Your task to perform on an android device: Open CNN.com Image 0: 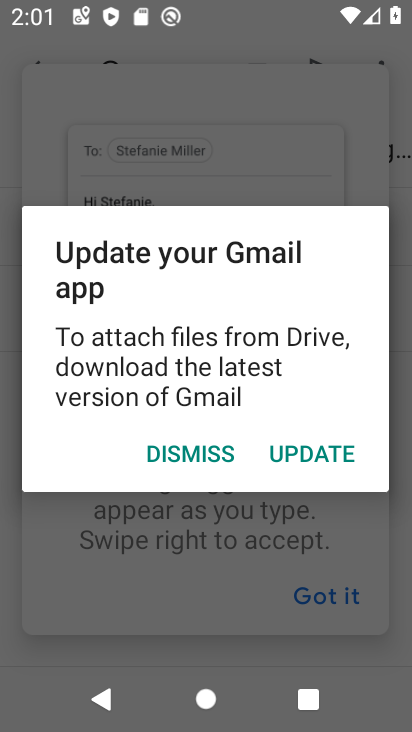
Step 0: press home button
Your task to perform on an android device: Open CNN.com Image 1: 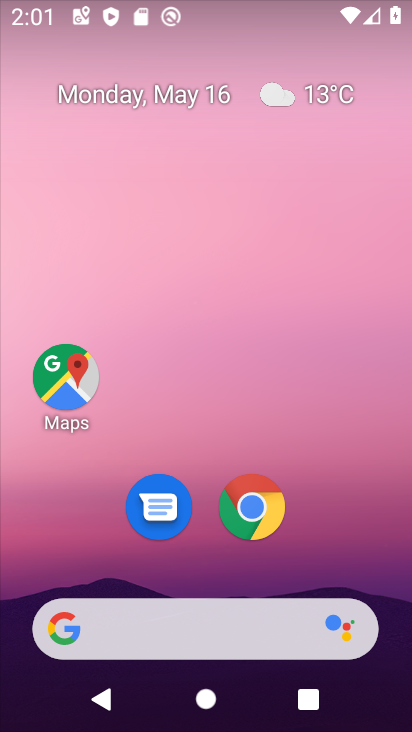
Step 1: drag from (393, 560) to (381, 164)
Your task to perform on an android device: Open CNN.com Image 2: 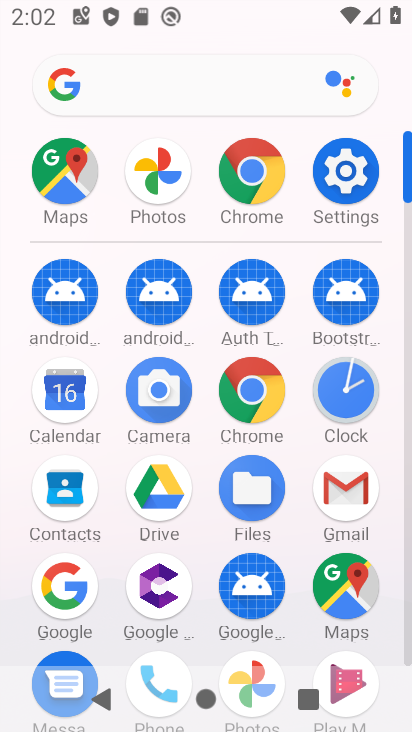
Step 2: click (278, 188)
Your task to perform on an android device: Open CNN.com Image 3: 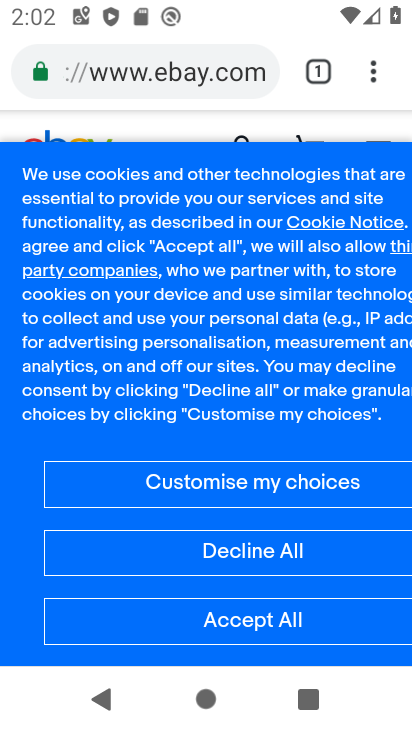
Step 3: task complete